Your task to perform on an android device: open app "Google Maps" Image 0: 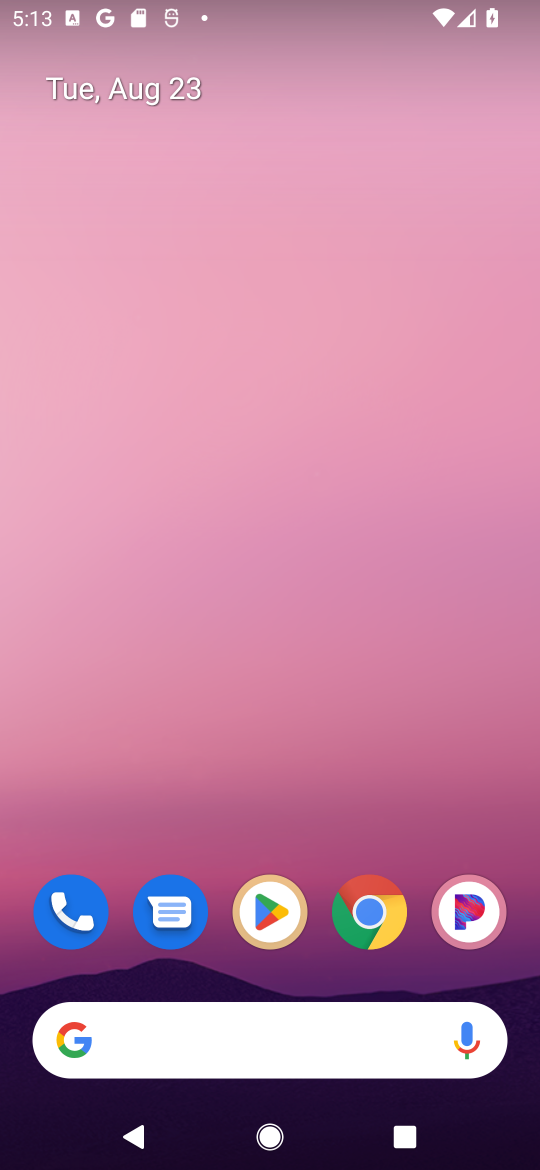
Step 0: drag from (236, 805) to (265, 245)
Your task to perform on an android device: open app "Google Maps" Image 1: 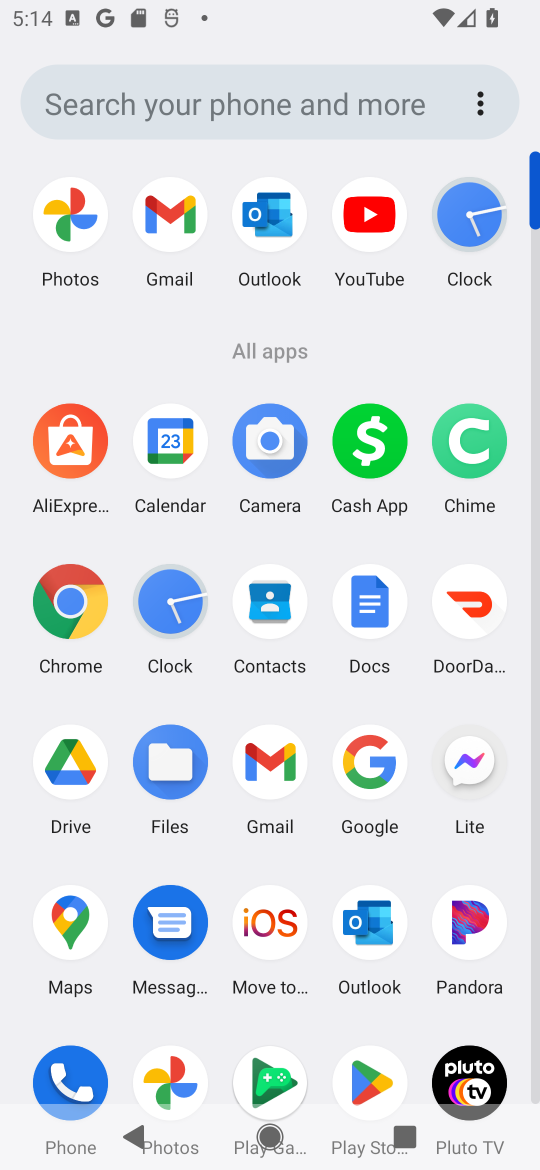
Step 1: drag from (201, 974) to (309, 362)
Your task to perform on an android device: open app "Google Maps" Image 2: 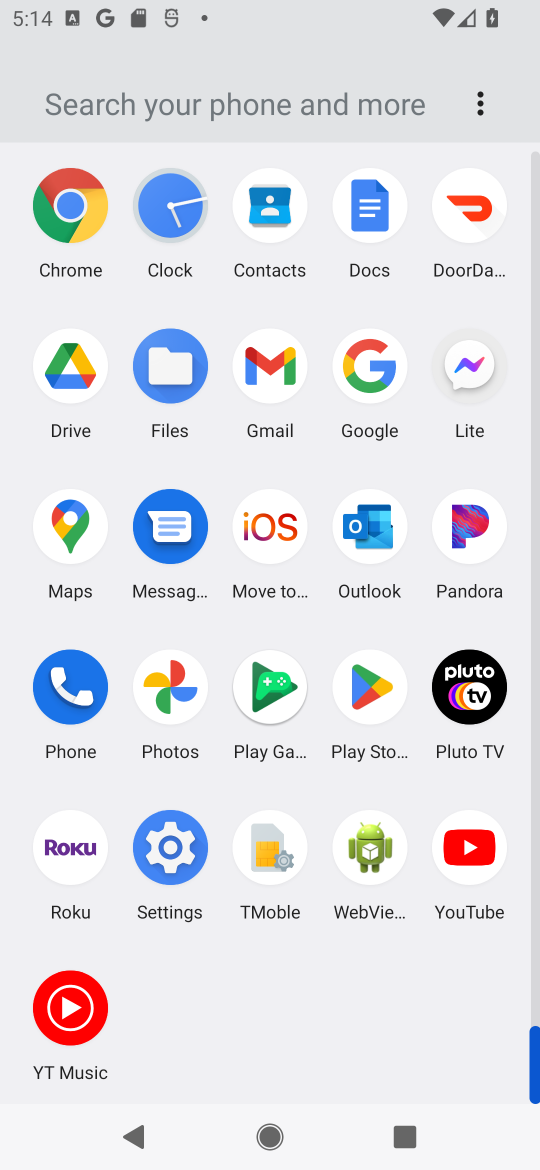
Step 2: click (384, 681)
Your task to perform on an android device: open app "Google Maps" Image 3: 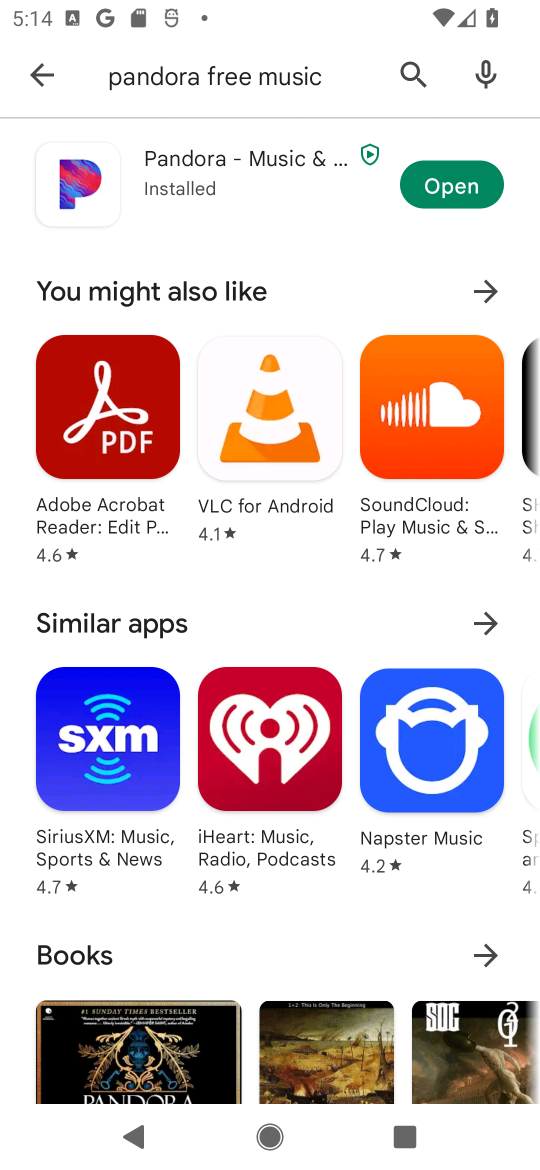
Step 3: click (54, 71)
Your task to perform on an android device: open app "Google Maps" Image 4: 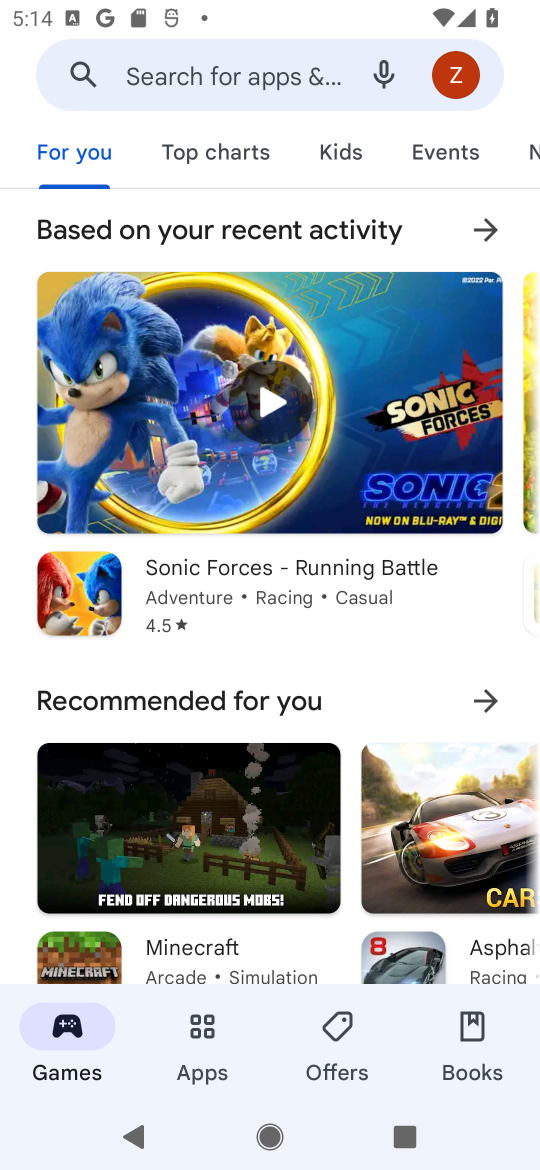
Step 4: click (262, 77)
Your task to perform on an android device: open app "Google Maps" Image 5: 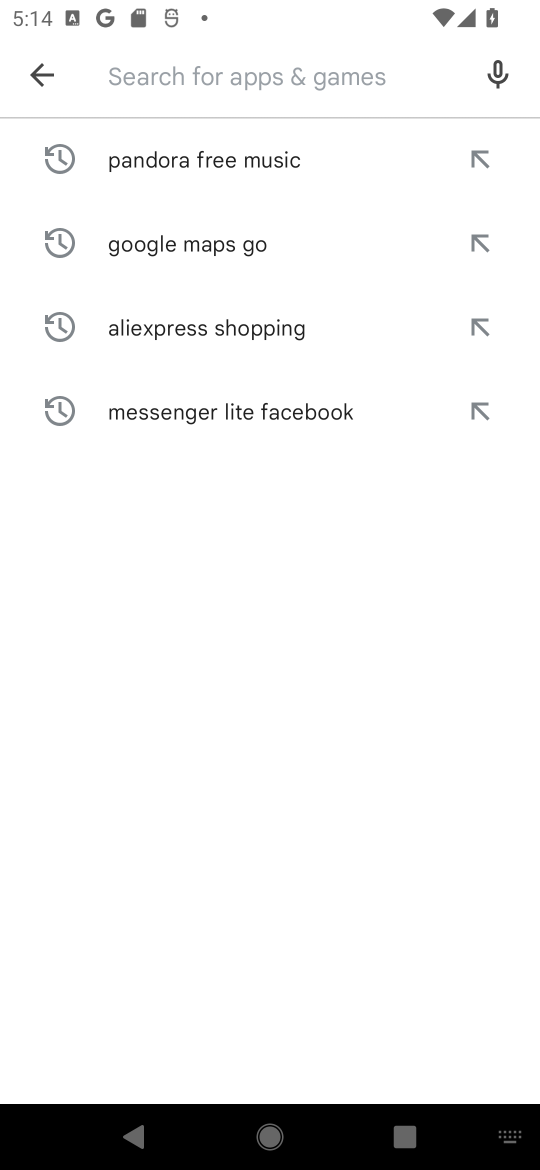
Step 5: type "Google Maps "
Your task to perform on an android device: open app "Google Maps" Image 6: 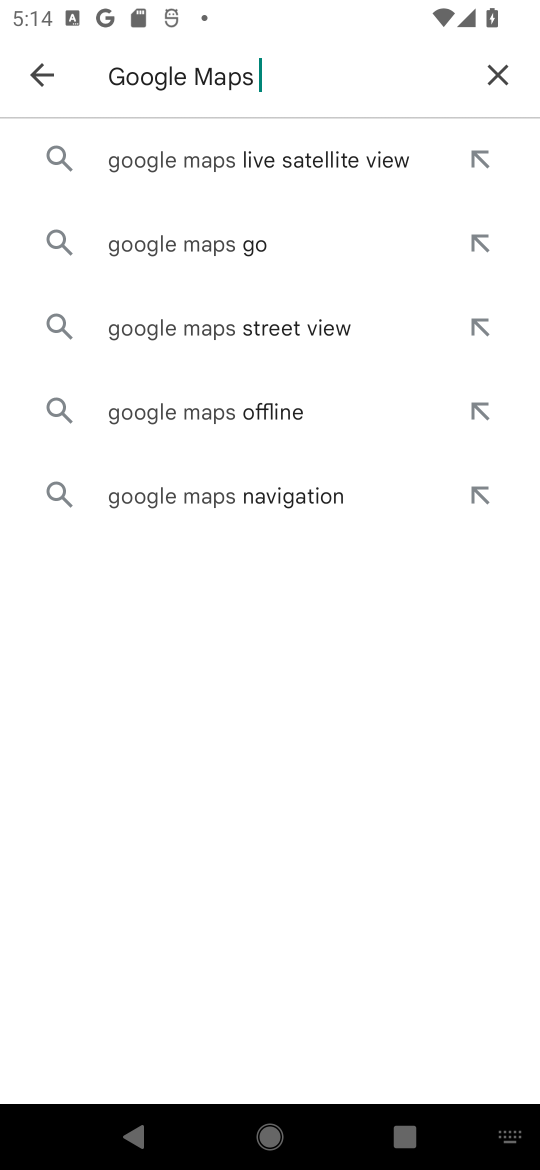
Step 6: click (200, 225)
Your task to perform on an android device: open app "Google Maps" Image 7: 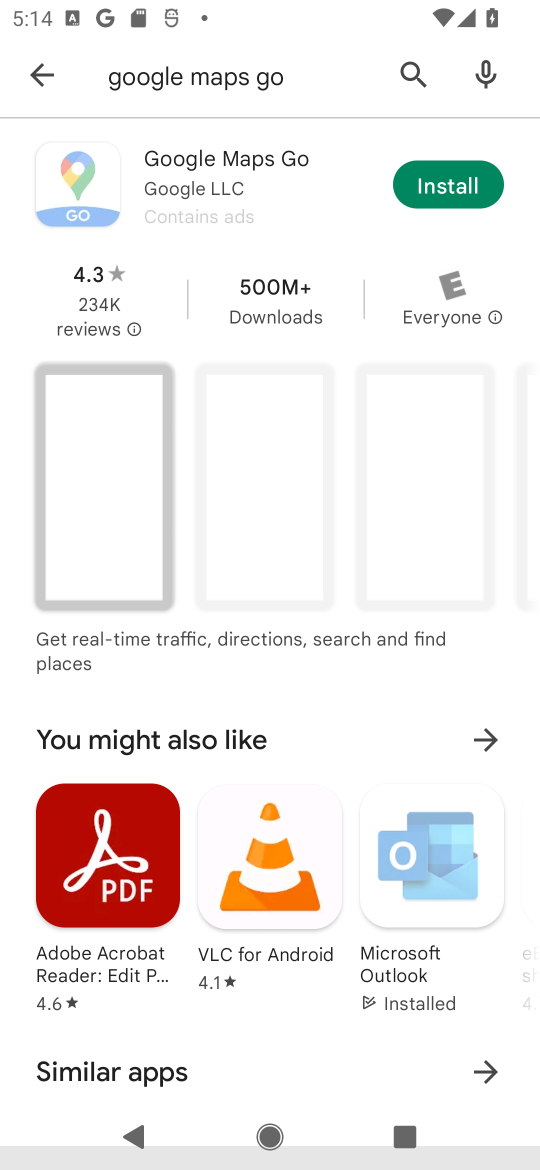
Step 7: click (200, 238)
Your task to perform on an android device: open app "Google Maps" Image 8: 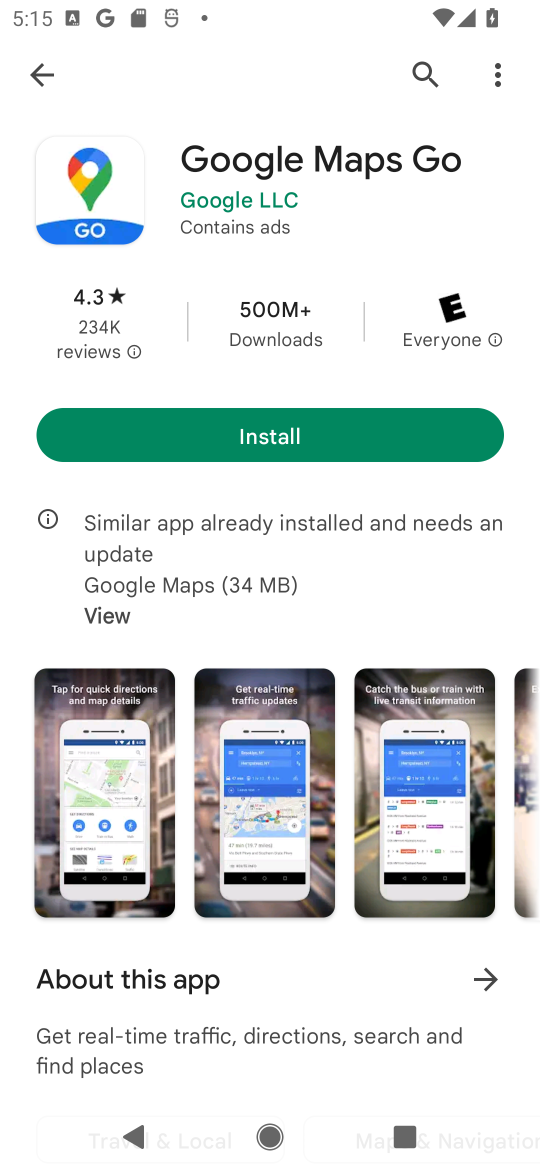
Step 8: click (228, 393)
Your task to perform on an android device: open app "Google Maps" Image 9: 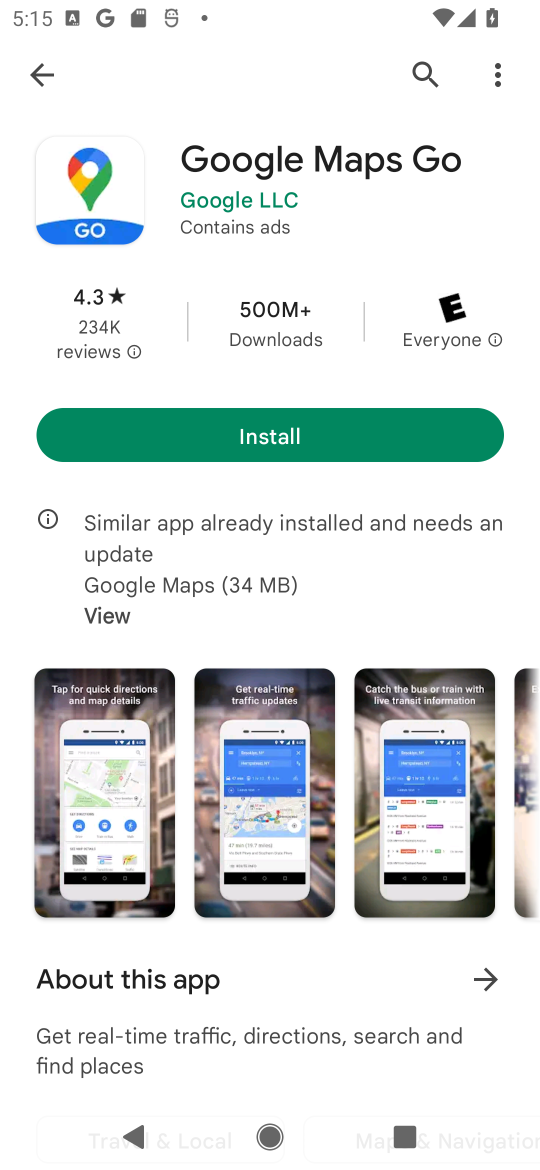
Step 9: click (228, 432)
Your task to perform on an android device: open app "Google Maps" Image 10: 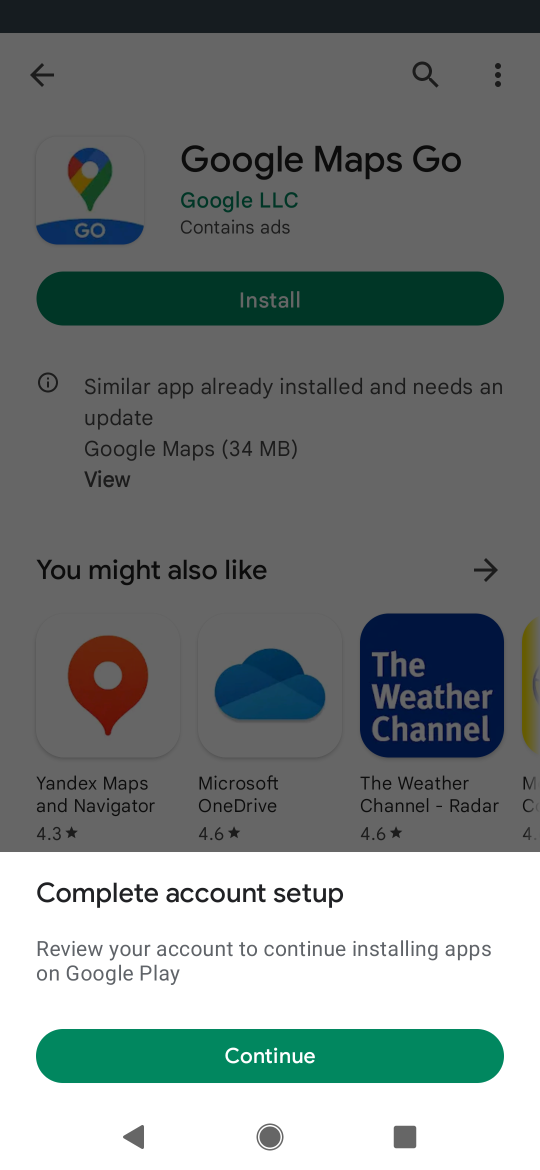
Step 10: task complete